Your task to perform on an android device: Clear the shopping cart on costco. Search for "usb-a" on costco, select the first entry, and add it to the cart. Image 0: 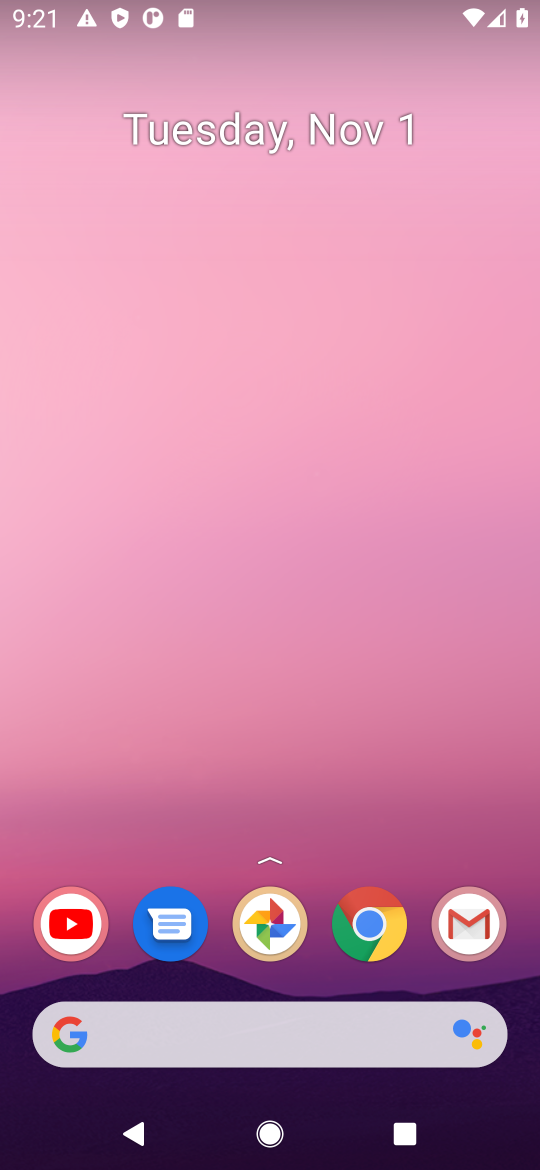
Step 0: click (365, 916)
Your task to perform on an android device: Clear the shopping cart on costco. Search for "usb-a" on costco, select the first entry, and add it to the cart. Image 1: 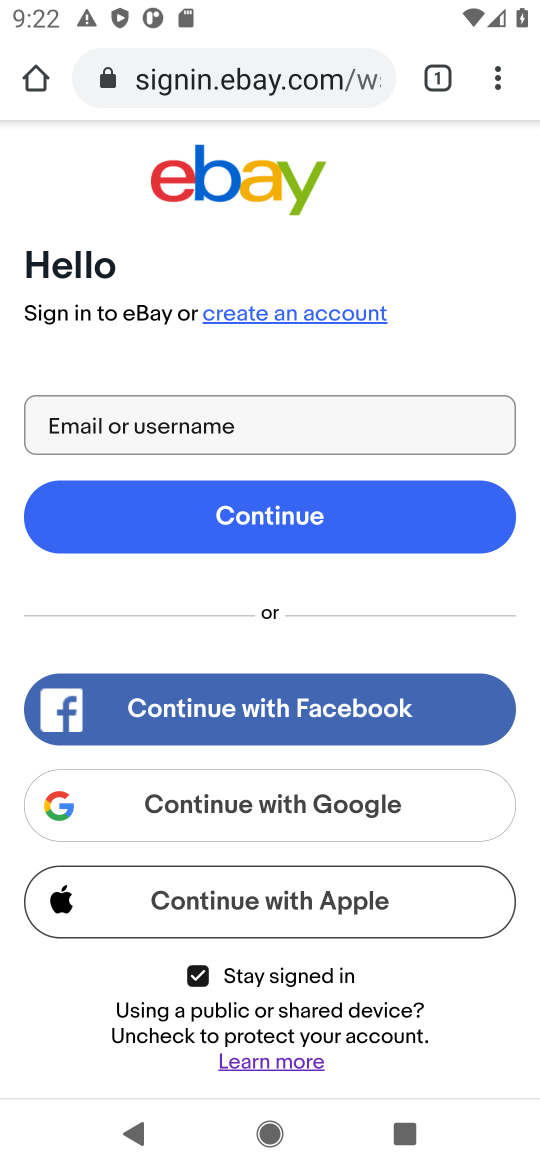
Step 1: click (249, 90)
Your task to perform on an android device: Clear the shopping cart on costco. Search for "usb-a" on costco, select the first entry, and add it to the cart. Image 2: 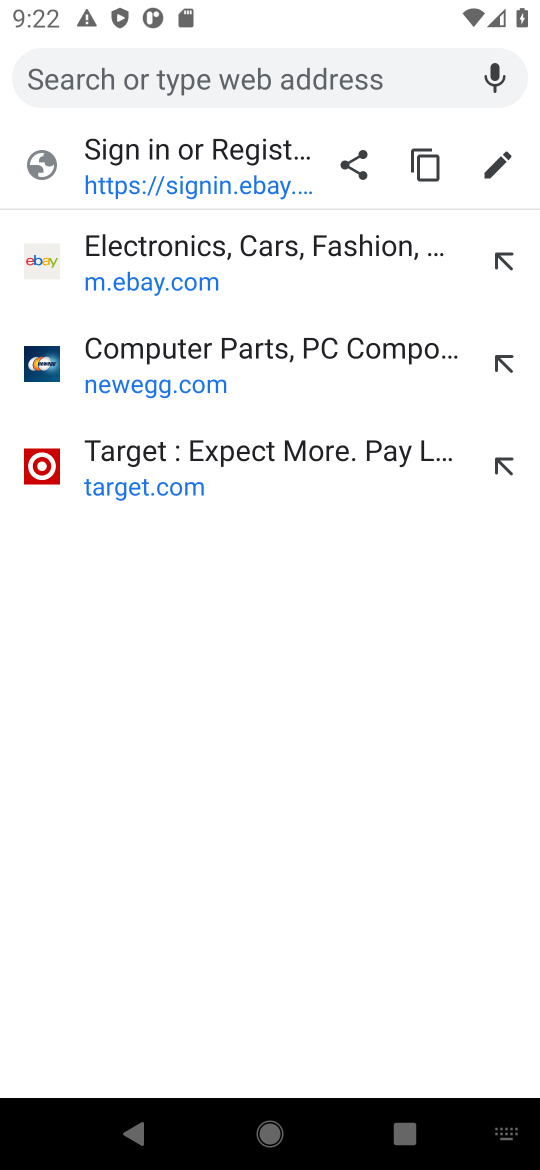
Step 2: type "costco"
Your task to perform on an android device: Clear the shopping cart on costco. Search for "usb-a" on costco, select the first entry, and add it to the cart. Image 3: 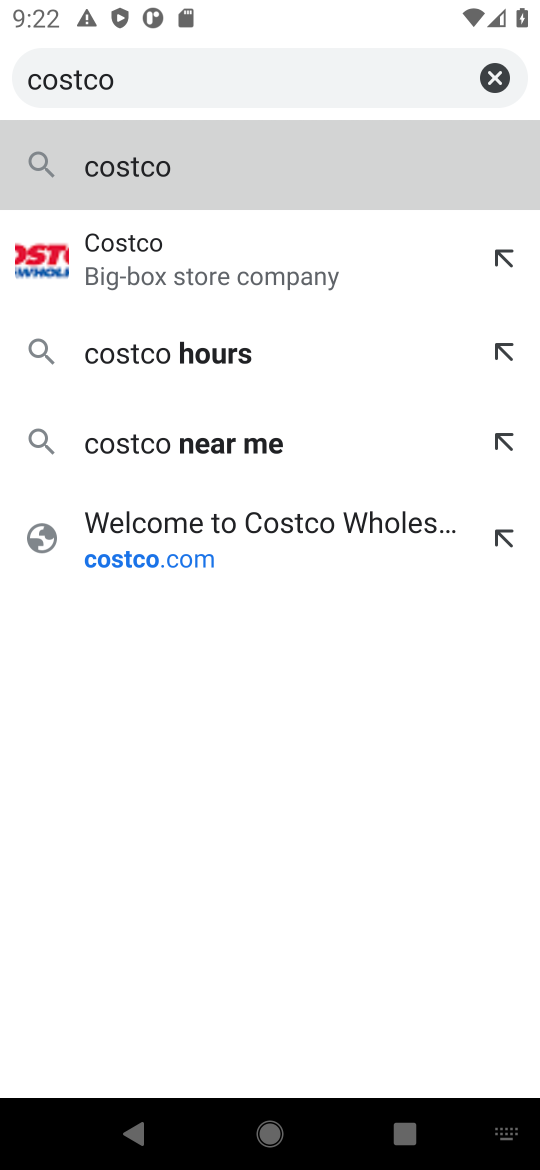
Step 3: click (209, 164)
Your task to perform on an android device: Clear the shopping cart on costco. Search for "usb-a" on costco, select the first entry, and add it to the cart. Image 4: 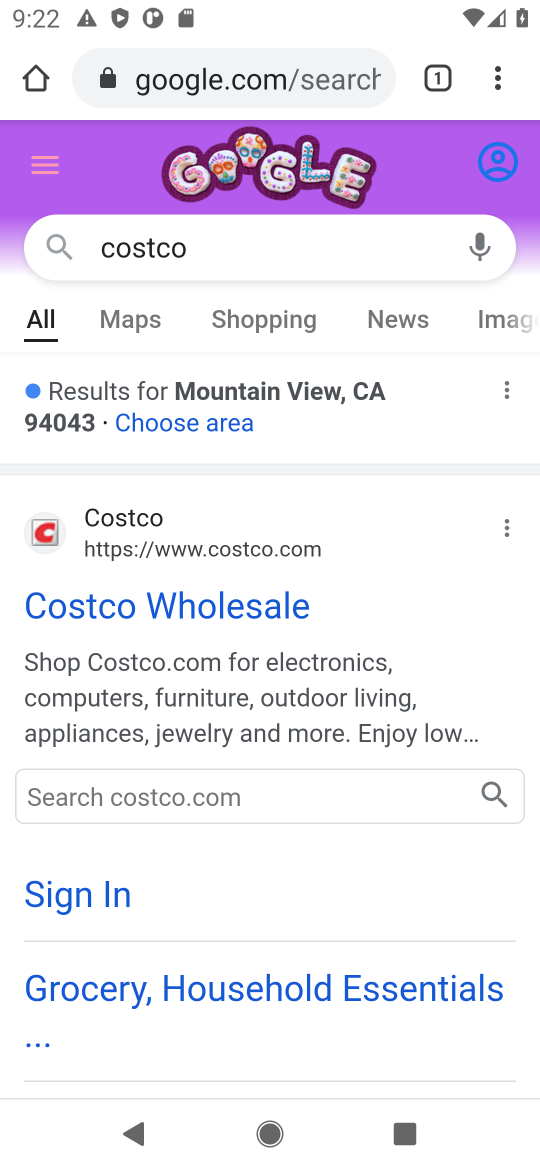
Step 4: click (131, 608)
Your task to perform on an android device: Clear the shopping cart on costco. Search for "usb-a" on costco, select the first entry, and add it to the cart. Image 5: 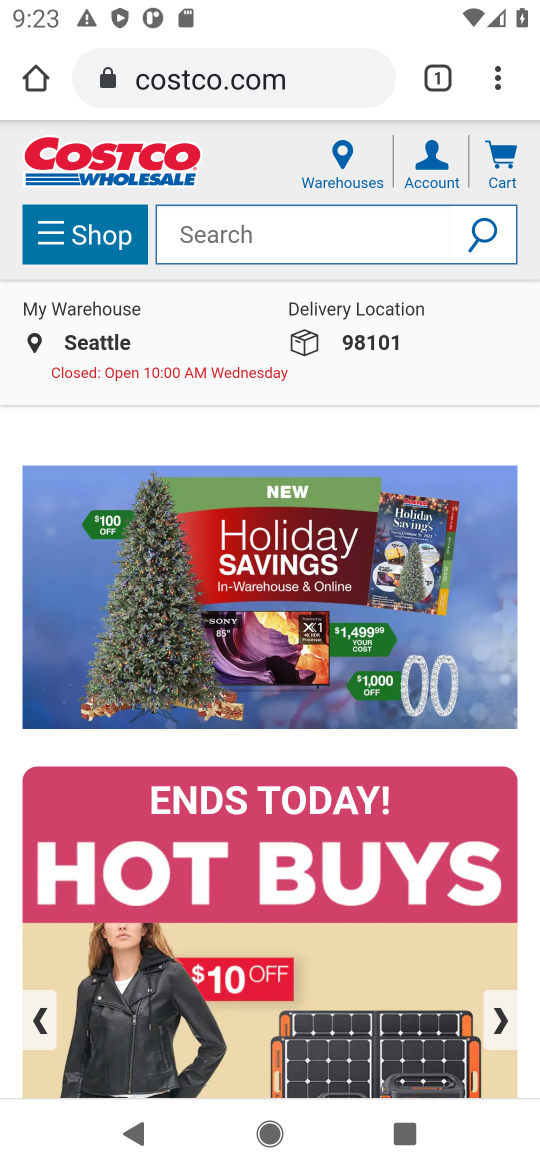
Step 5: click (271, 228)
Your task to perform on an android device: Clear the shopping cart on costco. Search for "usb-a" on costco, select the first entry, and add it to the cart. Image 6: 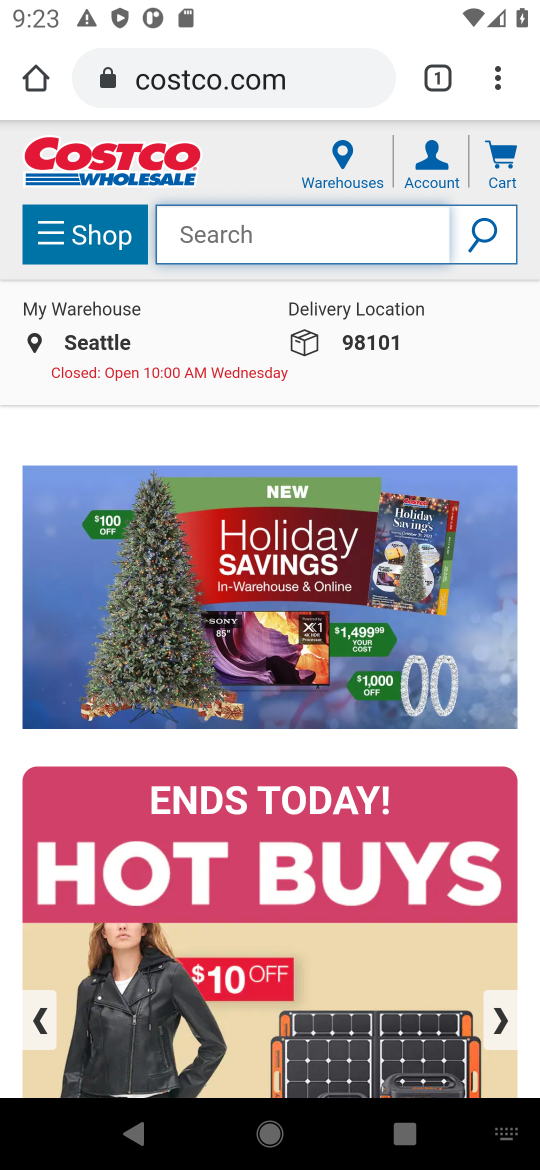
Step 6: click (499, 163)
Your task to perform on an android device: Clear the shopping cart on costco. Search for "usb-a" on costco, select the first entry, and add it to the cart. Image 7: 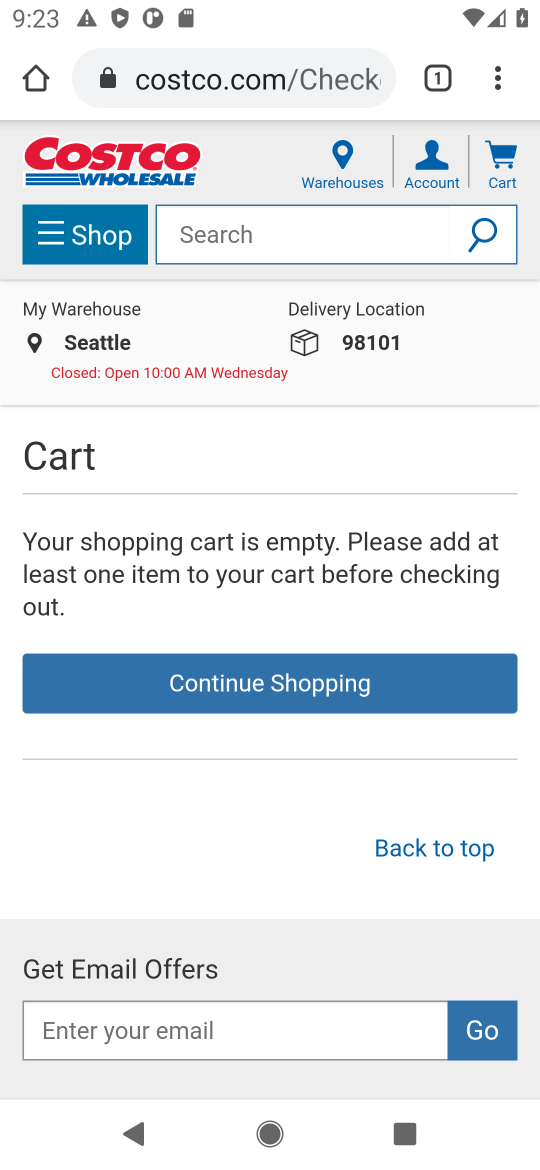
Step 7: click (508, 163)
Your task to perform on an android device: Clear the shopping cart on costco. Search for "usb-a" on costco, select the first entry, and add it to the cart. Image 8: 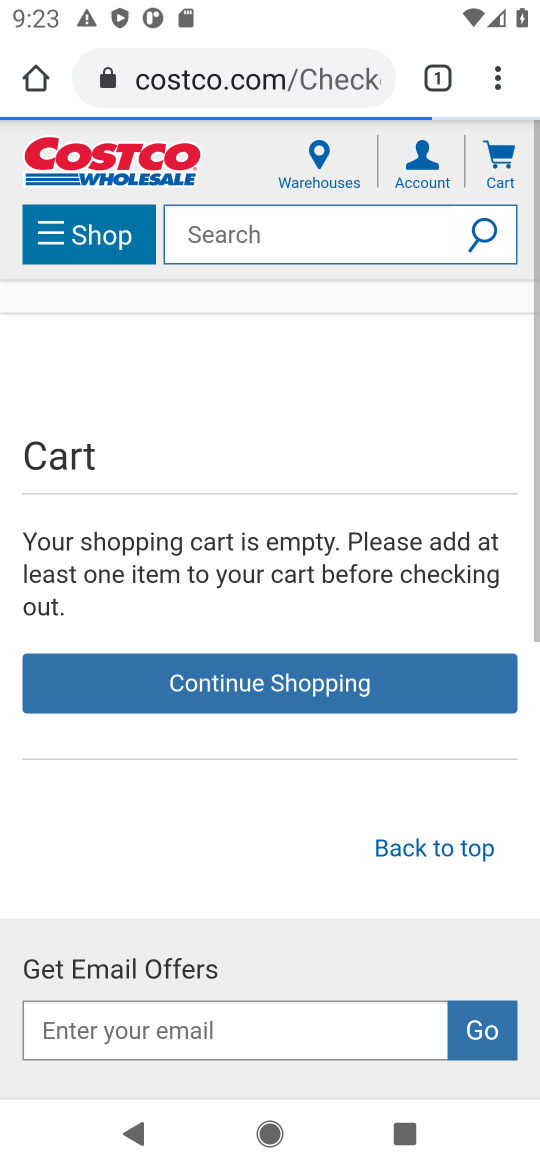
Step 8: click (326, 234)
Your task to perform on an android device: Clear the shopping cart on costco. Search for "usb-a" on costco, select the first entry, and add it to the cart. Image 9: 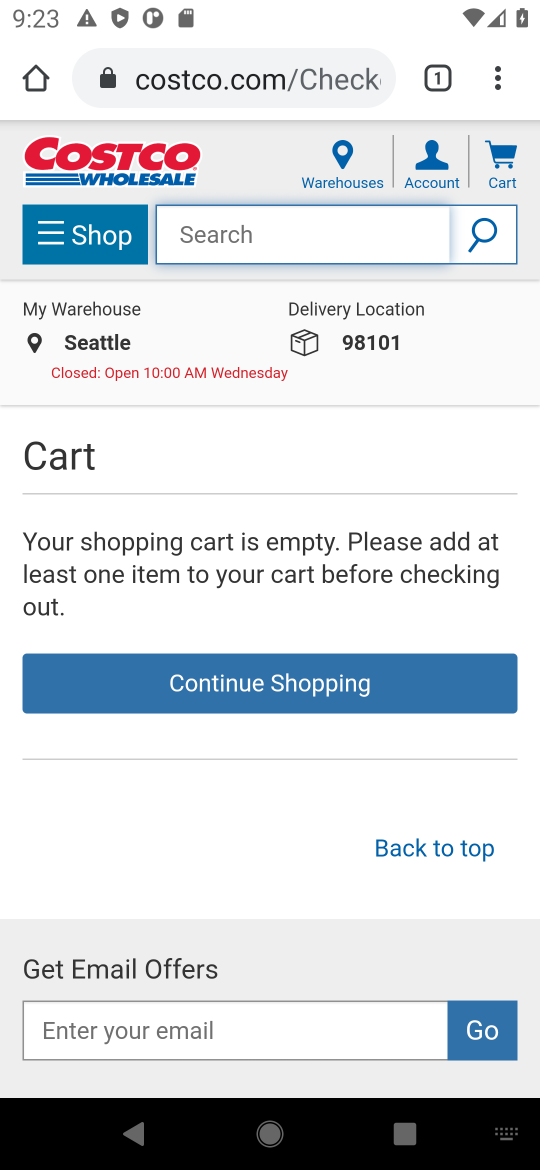
Step 9: type "usb-a"
Your task to perform on an android device: Clear the shopping cart on costco. Search for "usb-a" on costco, select the first entry, and add it to the cart. Image 10: 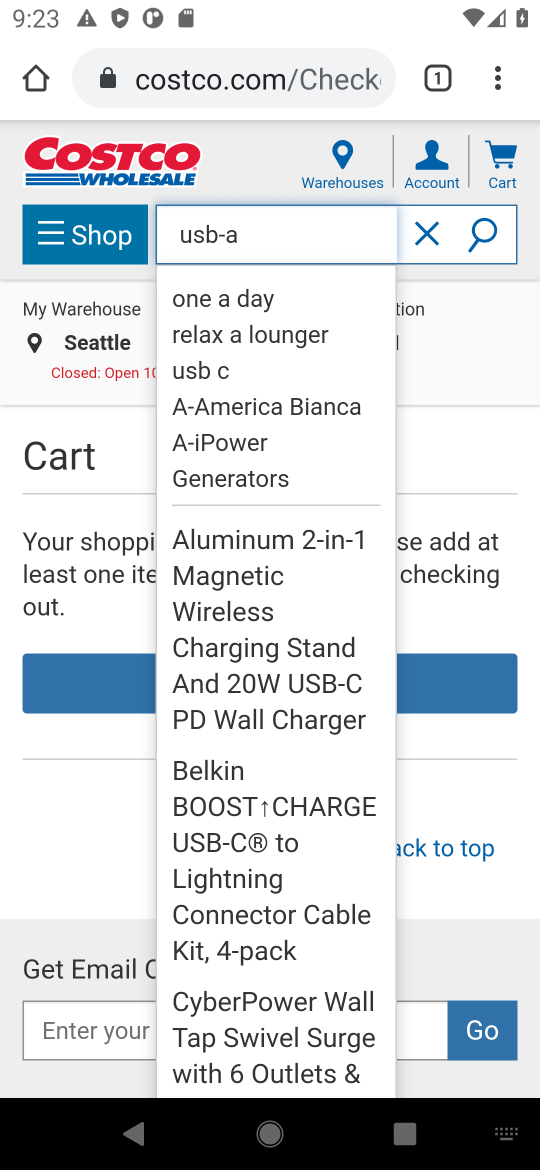
Step 10: click (489, 245)
Your task to perform on an android device: Clear the shopping cart on costco. Search for "usb-a" on costco, select the first entry, and add it to the cart. Image 11: 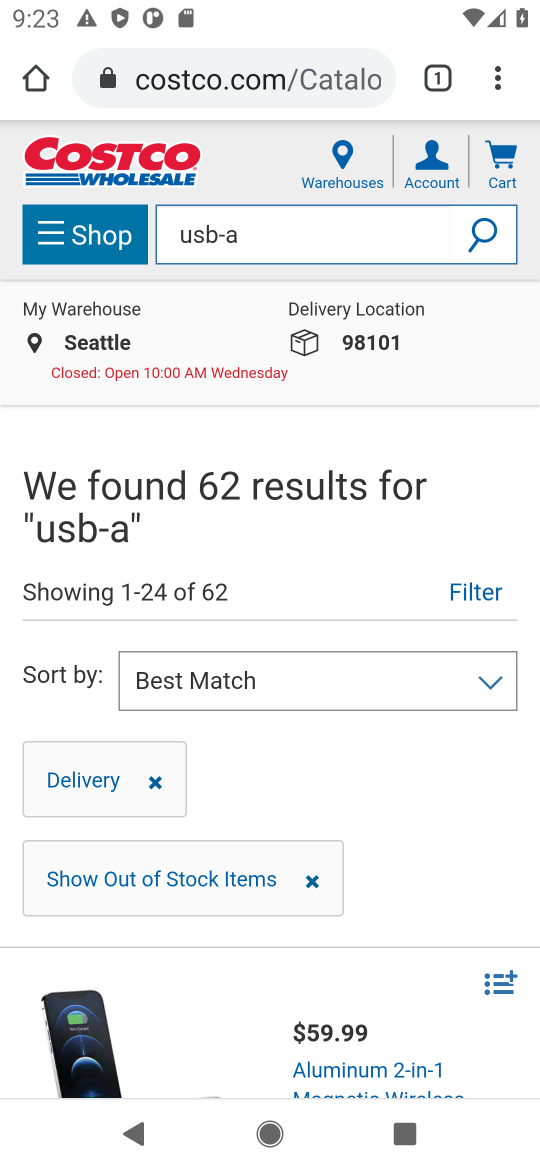
Step 11: drag from (369, 764) to (300, 525)
Your task to perform on an android device: Clear the shopping cart on costco. Search for "usb-a" on costco, select the first entry, and add it to the cart. Image 12: 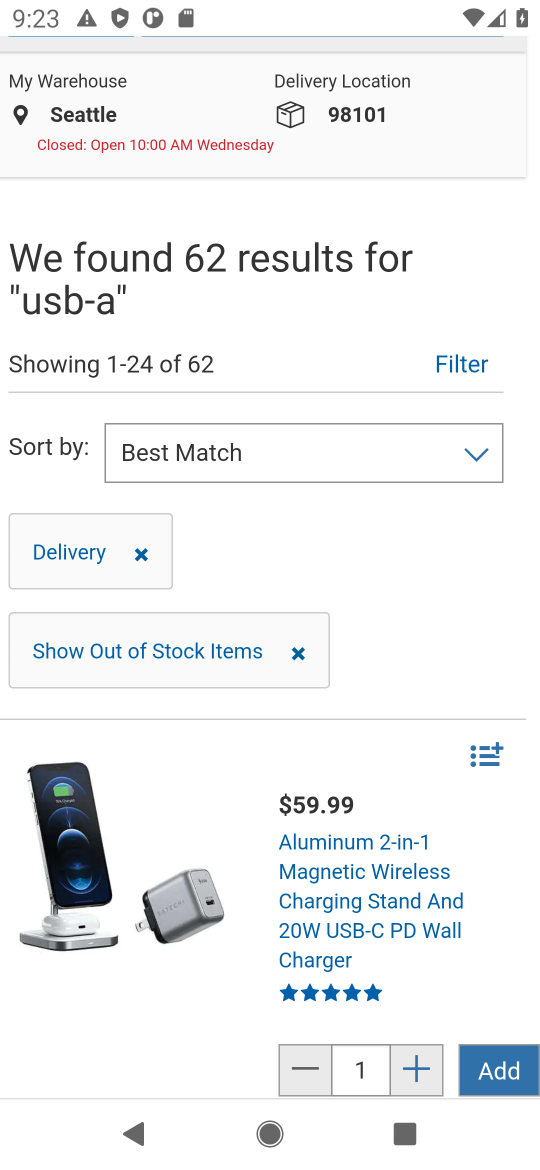
Step 12: click (270, 893)
Your task to perform on an android device: Clear the shopping cart on costco. Search for "usb-a" on costco, select the first entry, and add it to the cart. Image 13: 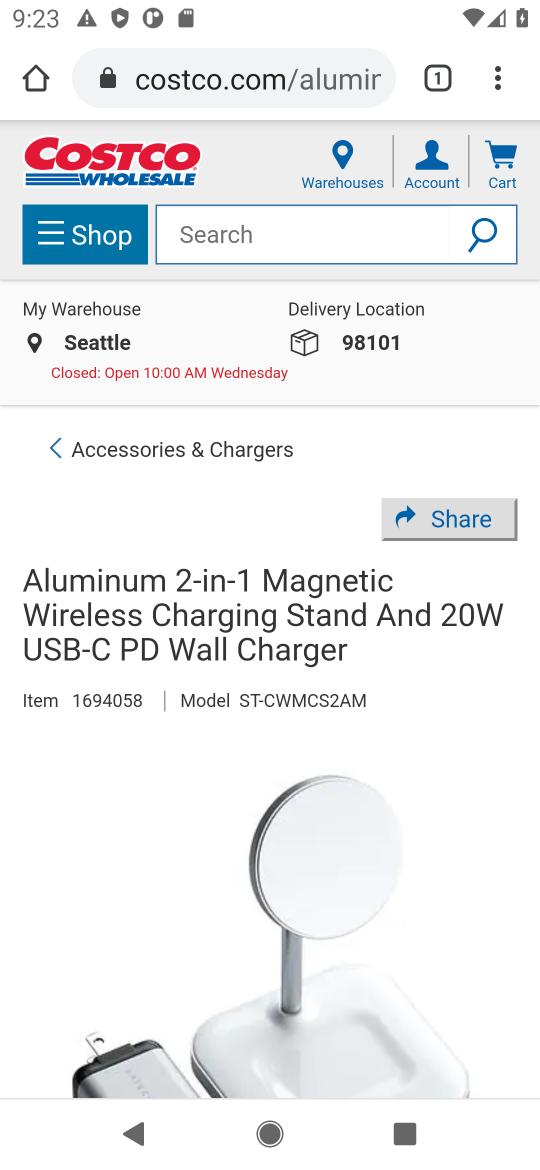
Step 13: drag from (339, 848) to (297, 362)
Your task to perform on an android device: Clear the shopping cart on costco. Search for "usb-a" on costco, select the first entry, and add it to the cart. Image 14: 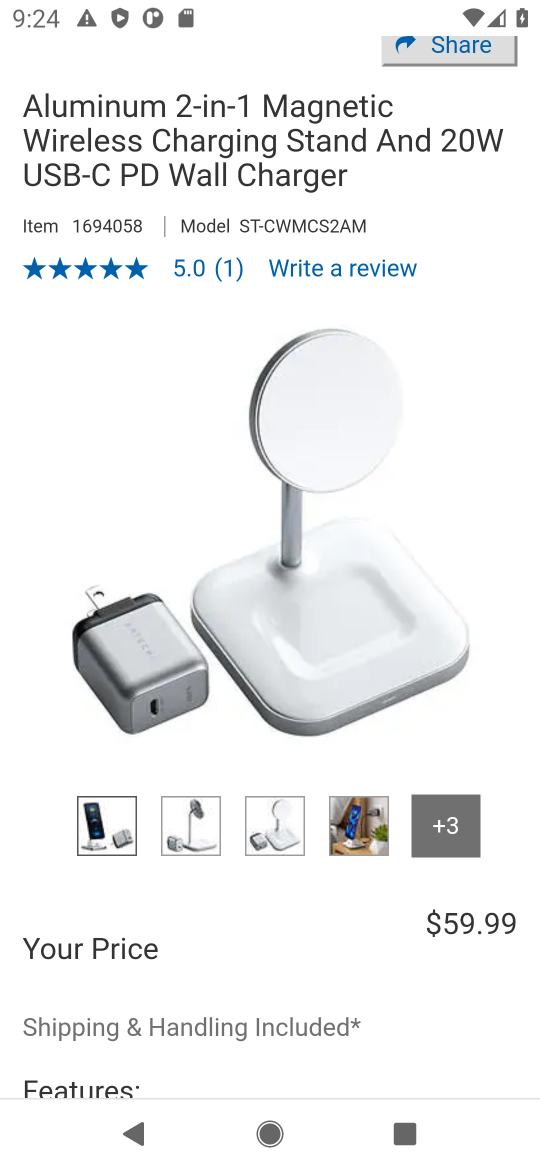
Step 14: drag from (302, 949) to (275, 617)
Your task to perform on an android device: Clear the shopping cart on costco. Search for "usb-a" on costco, select the first entry, and add it to the cart. Image 15: 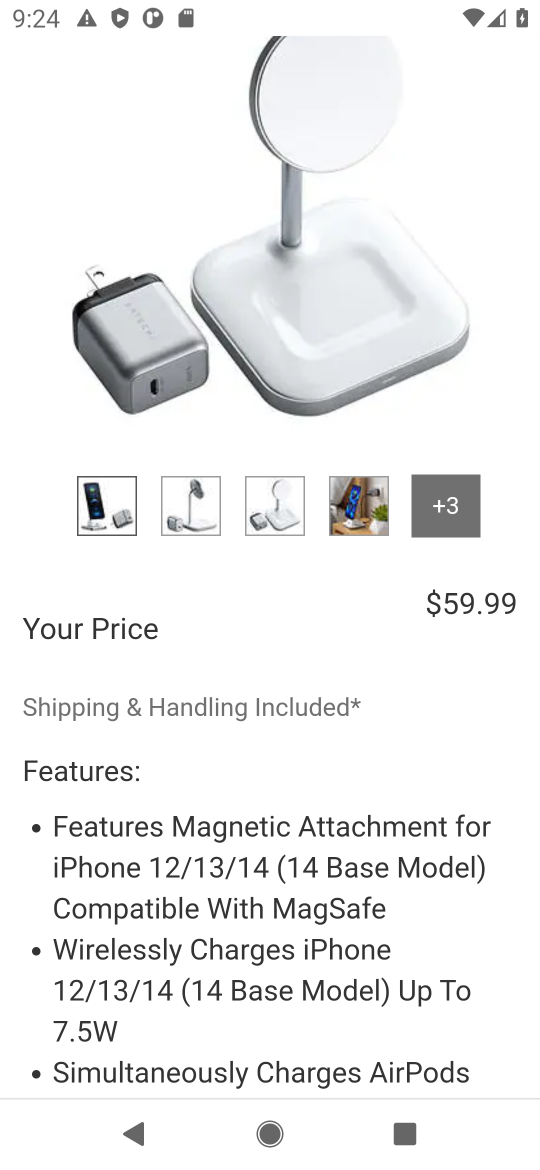
Step 15: drag from (371, 1001) to (266, 655)
Your task to perform on an android device: Clear the shopping cart on costco. Search for "usb-a" on costco, select the first entry, and add it to the cart. Image 16: 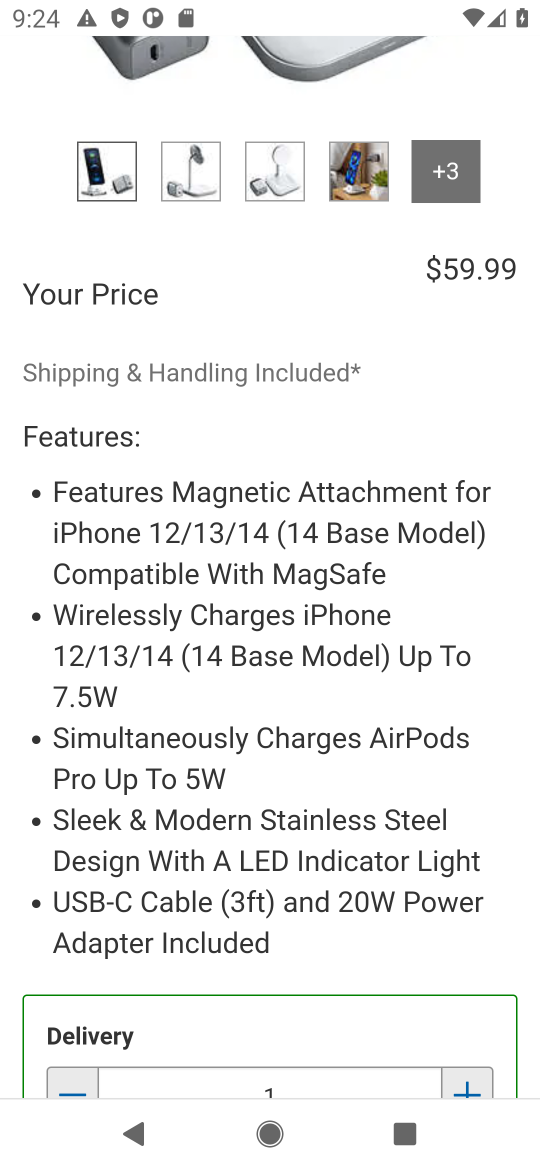
Step 16: drag from (306, 969) to (249, 456)
Your task to perform on an android device: Clear the shopping cart on costco. Search for "usb-a" on costco, select the first entry, and add it to the cart. Image 17: 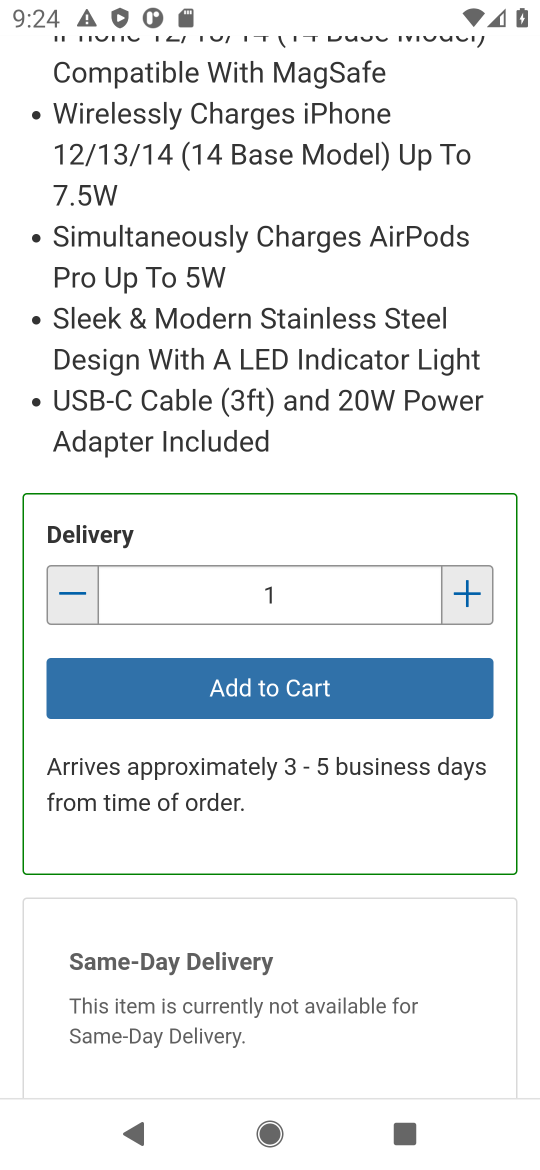
Step 17: click (278, 689)
Your task to perform on an android device: Clear the shopping cart on costco. Search for "usb-a" on costco, select the first entry, and add it to the cart. Image 18: 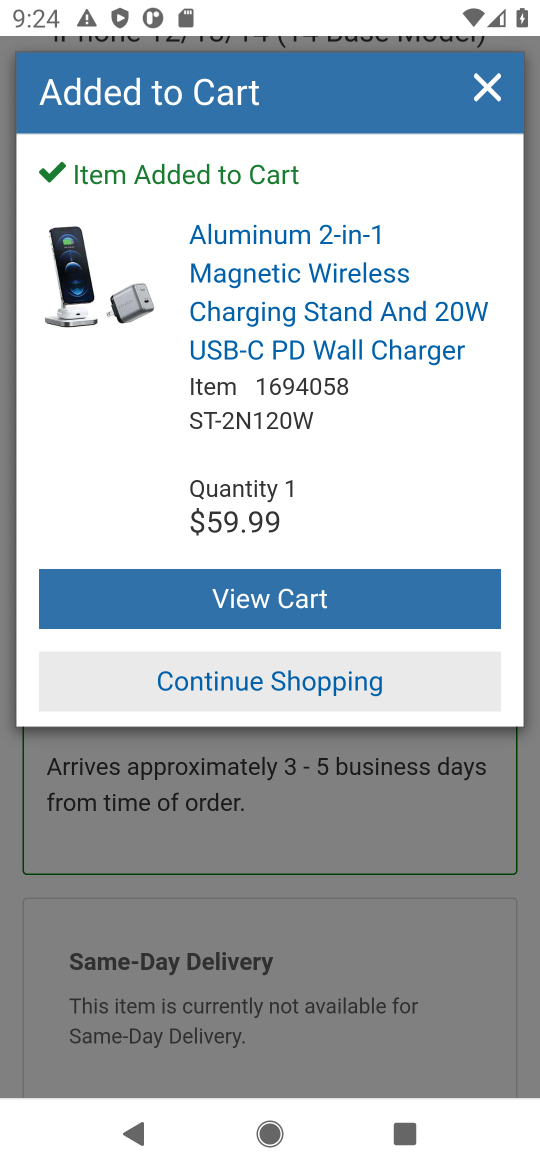
Step 18: task complete